Your task to perform on an android device: turn on the 24-hour format for clock Image 0: 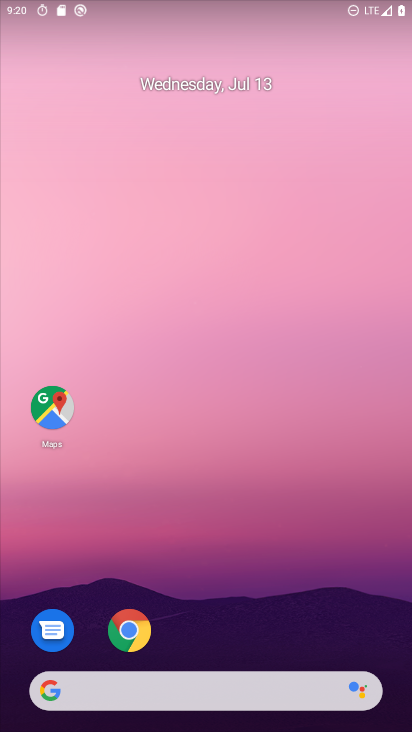
Step 0: drag from (395, 645) to (220, 46)
Your task to perform on an android device: turn on the 24-hour format for clock Image 1: 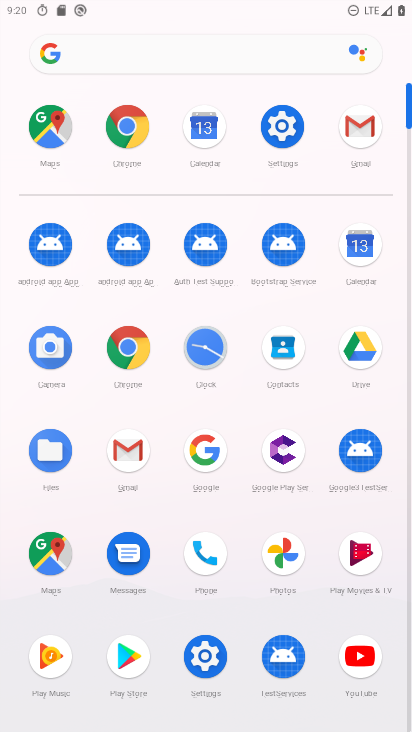
Step 1: click (207, 338)
Your task to perform on an android device: turn on the 24-hour format for clock Image 2: 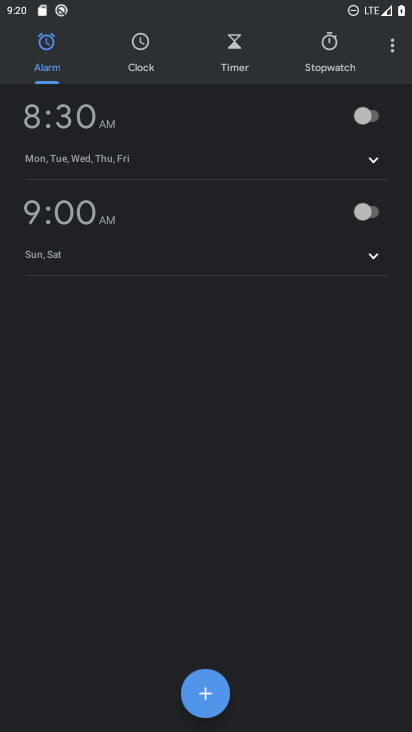
Step 2: click (380, 43)
Your task to perform on an android device: turn on the 24-hour format for clock Image 3: 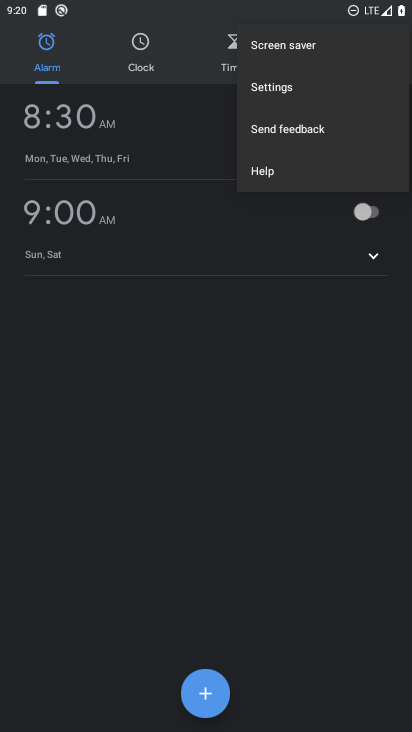
Step 3: click (316, 89)
Your task to perform on an android device: turn on the 24-hour format for clock Image 4: 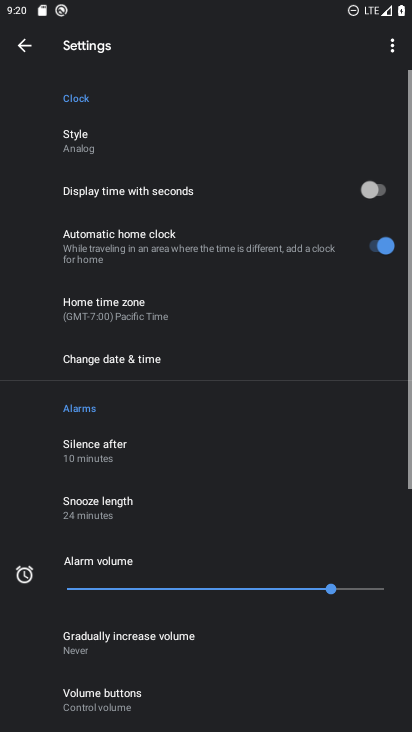
Step 4: click (134, 357)
Your task to perform on an android device: turn on the 24-hour format for clock Image 5: 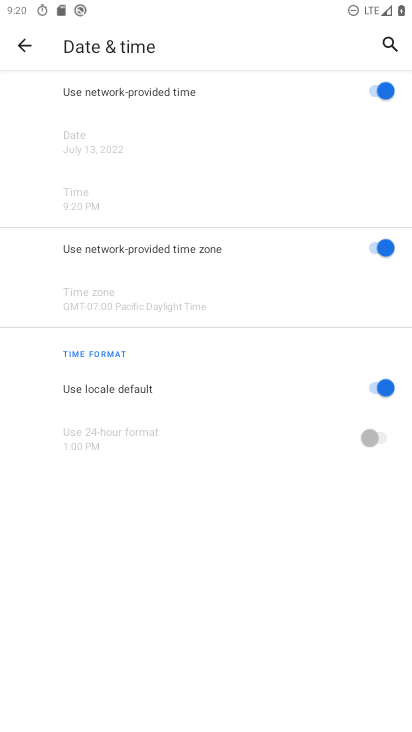
Step 5: task complete